Your task to perform on an android device: set an alarm Image 0: 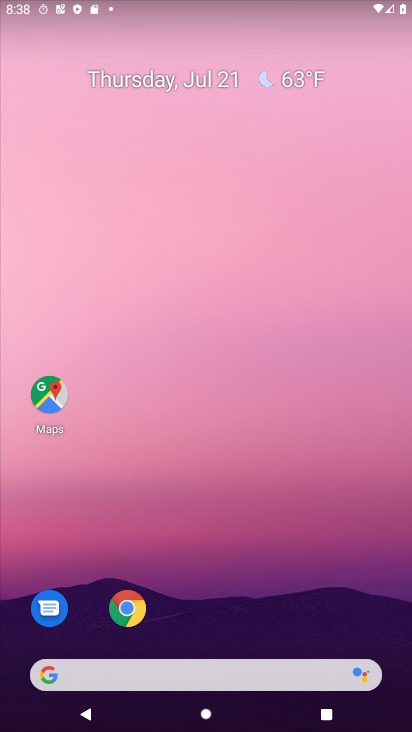
Step 0: drag from (263, 603) to (339, 178)
Your task to perform on an android device: set an alarm Image 1: 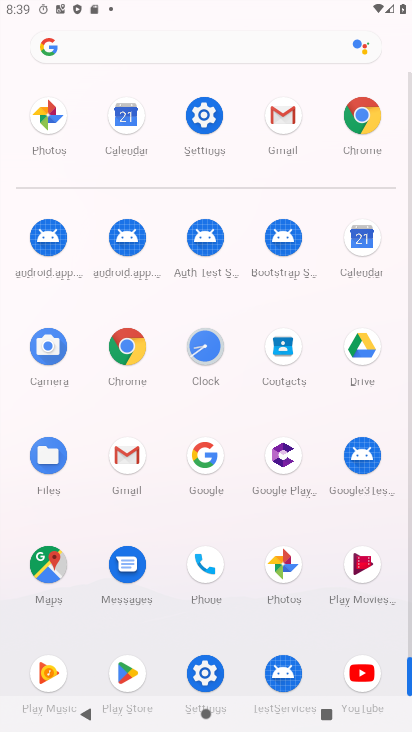
Step 1: click (190, 361)
Your task to perform on an android device: set an alarm Image 2: 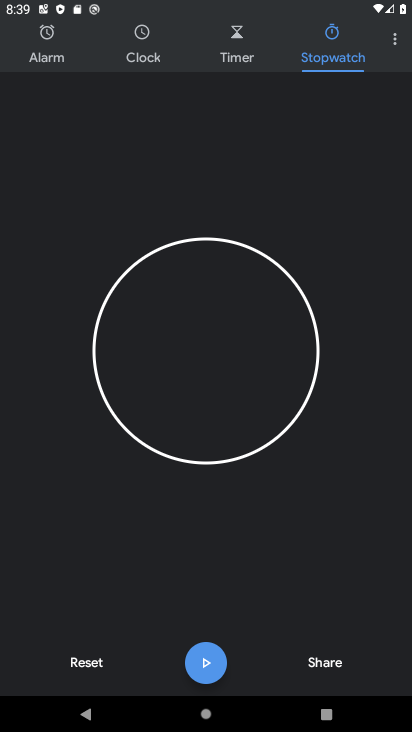
Step 2: click (50, 26)
Your task to perform on an android device: set an alarm Image 3: 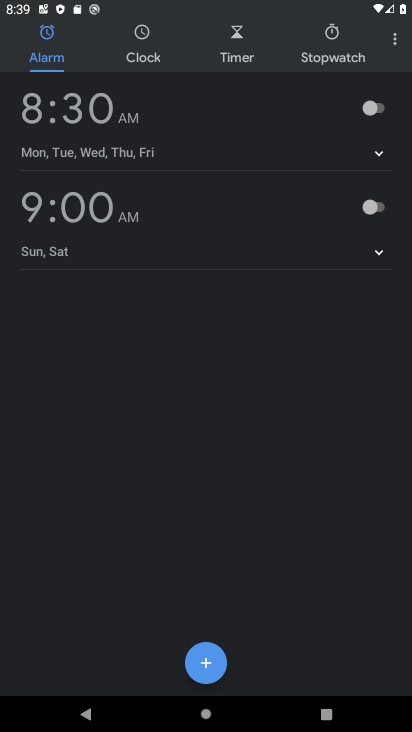
Step 3: click (197, 662)
Your task to perform on an android device: set an alarm Image 4: 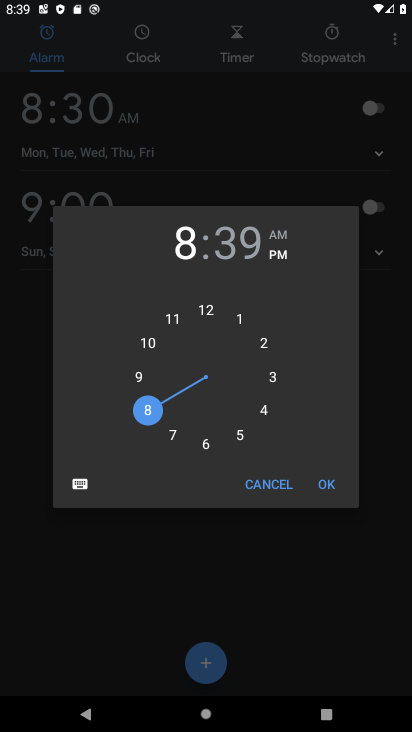
Step 4: click (341, 488)
Your task to perform on an android device: set an alarm Image 5: 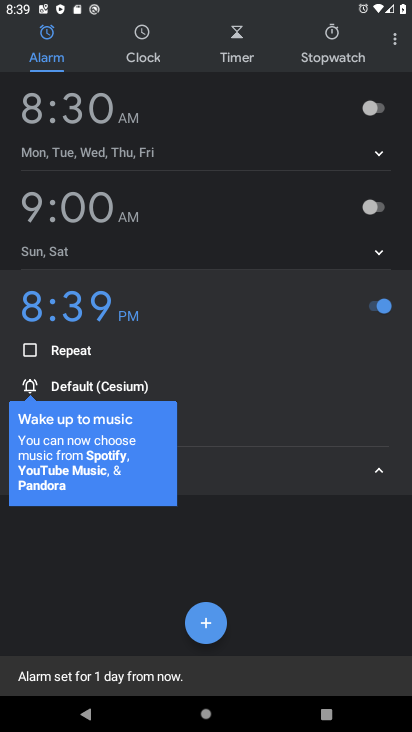
Step 5: task complete